Your task to perform on an android device: find snoozed emails in the gmail app Image 0: 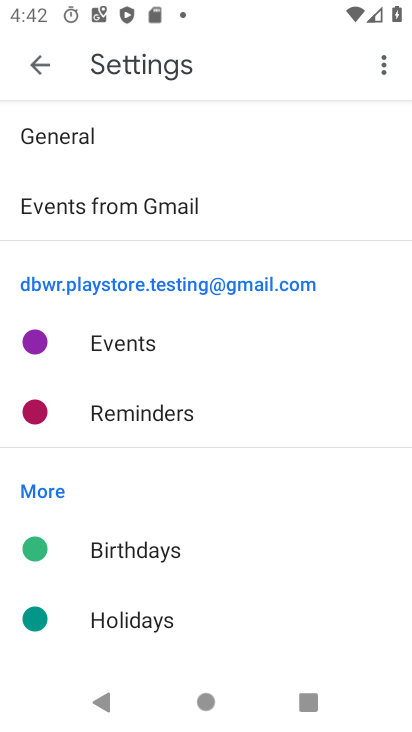
Step 0: press home button
Your task to perform on an android device: find snoozed emails in the gmail app Image 1: 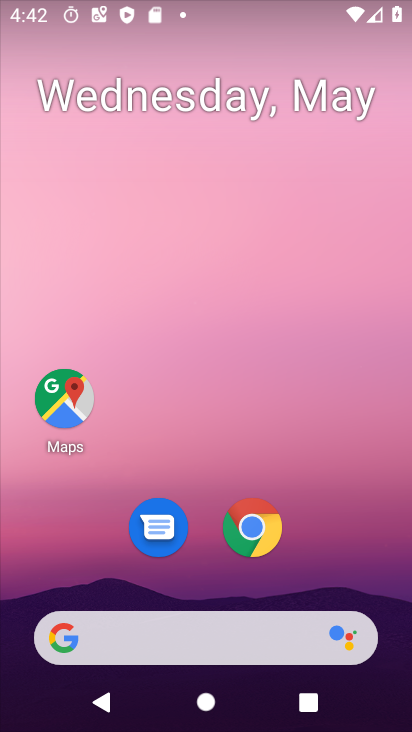
Step 1: drag from (319, 544) to (305, 158)
Your task to perform on an android device: find snoozed emails in the gmail app Image 2: 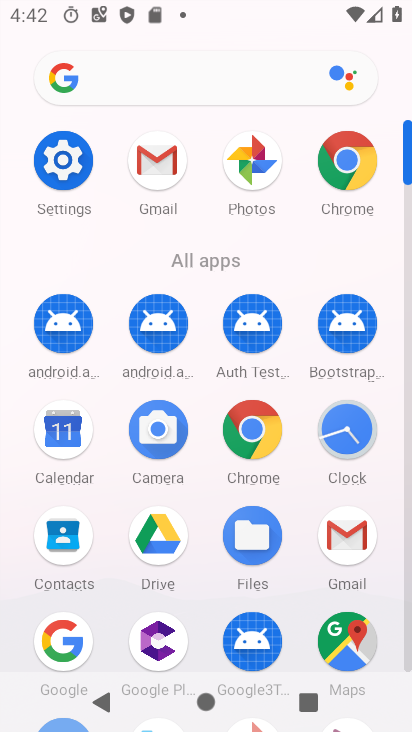
Step 2: click (351, 534)
Your task to perform on an android device: find snoozed emails in the gmail app Image 3: 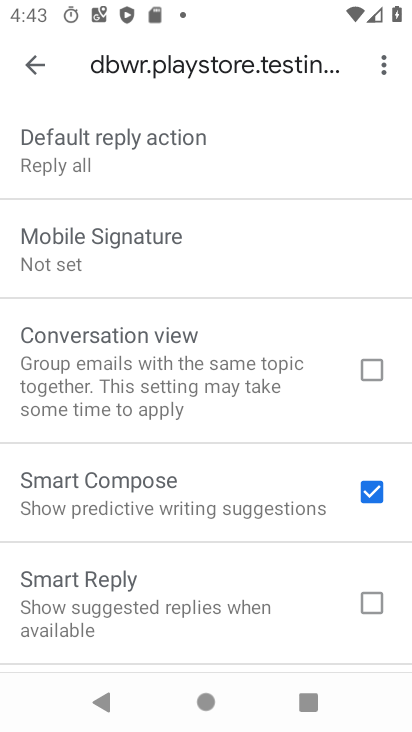
Step 3: click (28, 66)
Your task to perform on an android device: find snoozed emails in the gmail app Image 4: 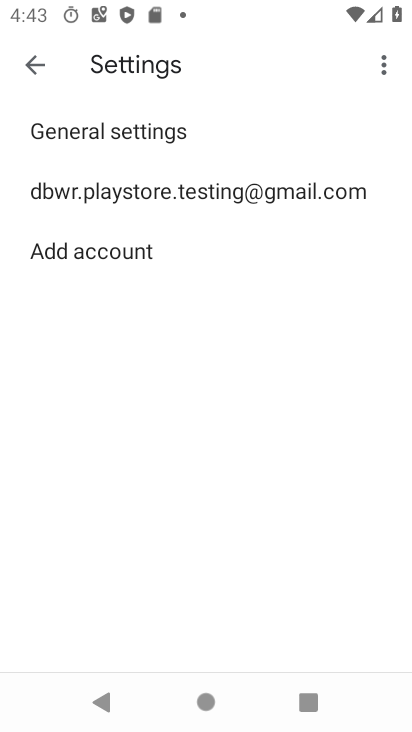
Step 4: click (41, 63)
Your task to perform on an android device: find snoozed emails in the gmail app Image 5: 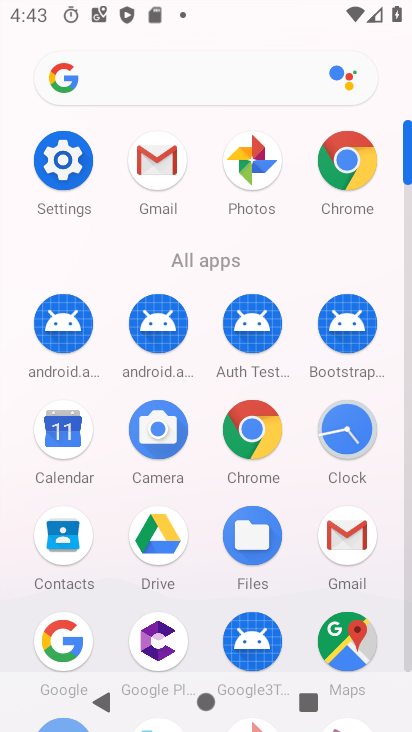
Step 5: click (151, 160)
Your task to perform on an android device: find snoozed emails in the gmail app Image 6: 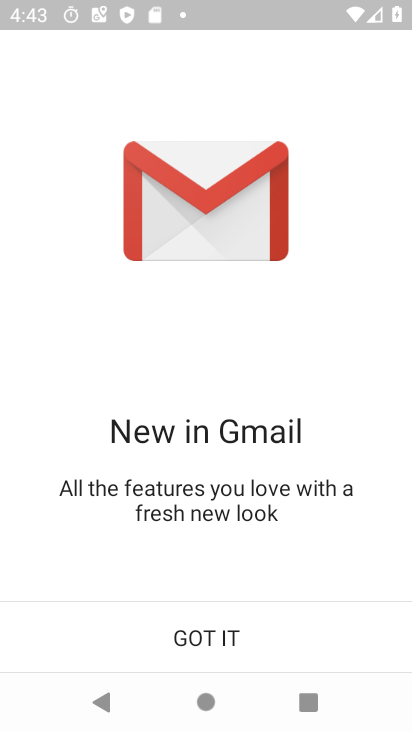
Step 6: click (231, 635)
Your task to perform on an android device: find snoozed emails in the gmail app Image 7: 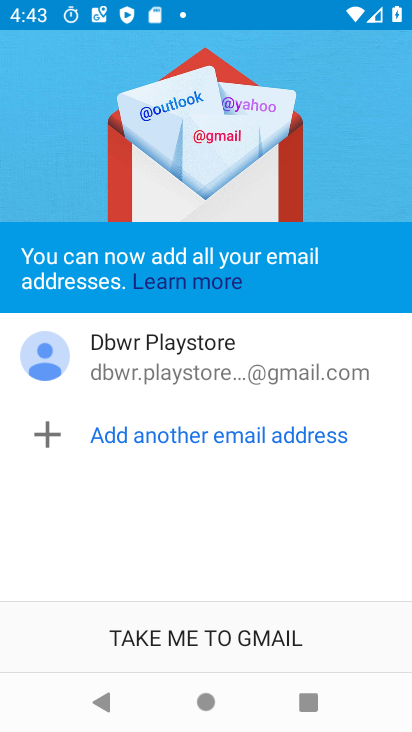
Step 7: click (231, 635)
Your task to perform on an android device: find snoozed emails in the gmail app Image 8: 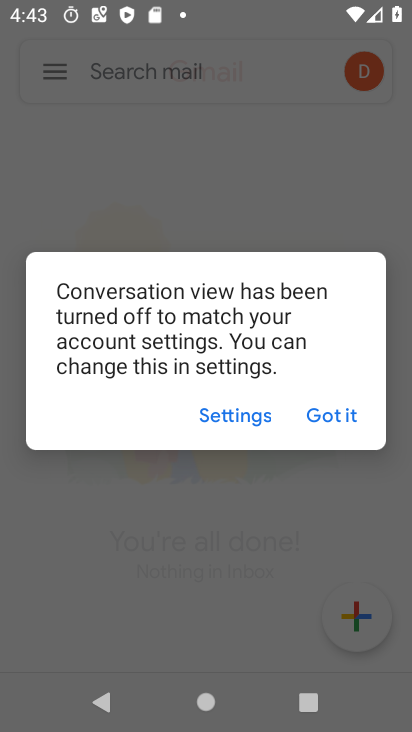
Step 8: click (317, 422)
Your task to perform on an android device: find snoozed emails in the gmail app Image 9: 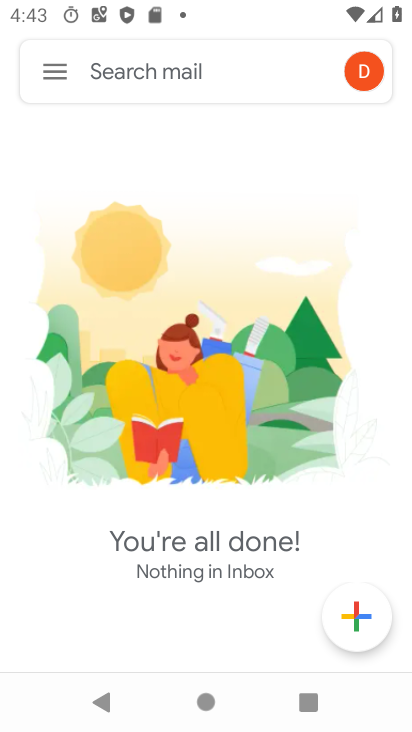
Step 9: drag from (50, 73) to (62, 166)
Your task to perform on an android device: find snoozed emails in the gmail app Image 10: 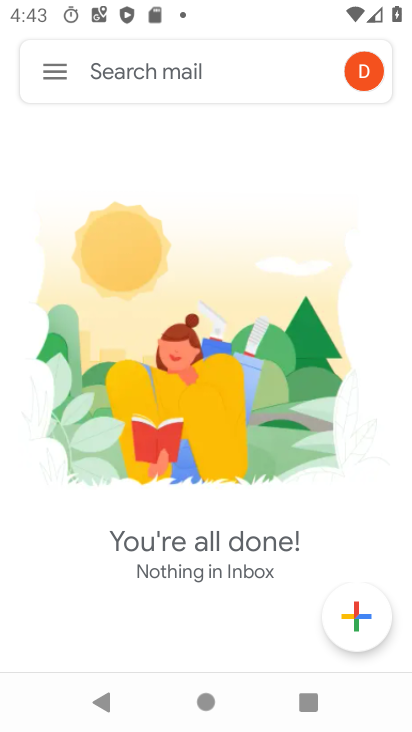
Step 10: click (55, 79)
Your task to perform on an android device: find snoozed emails in the gmail app Image 11: 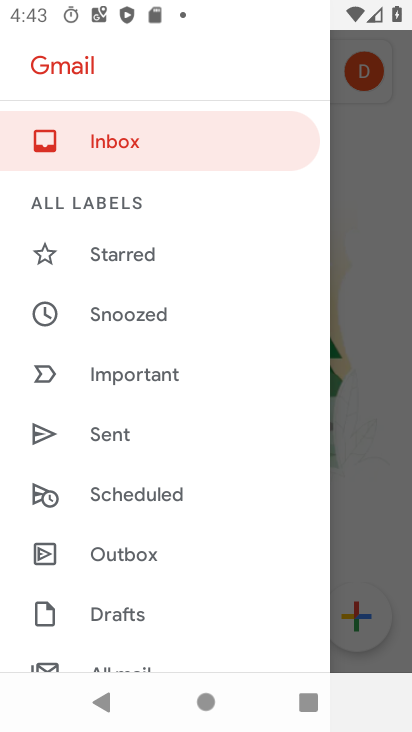
Step 11: click (132, 320)
Your task to perform on an android device: find snoozed emails in the gmail app Image 12: 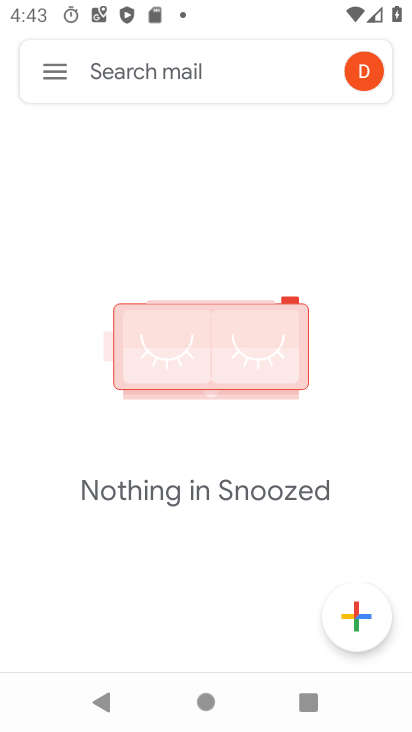
Step 12: task complete